Your task to perform on an android device: Open Google Maps Image 0: 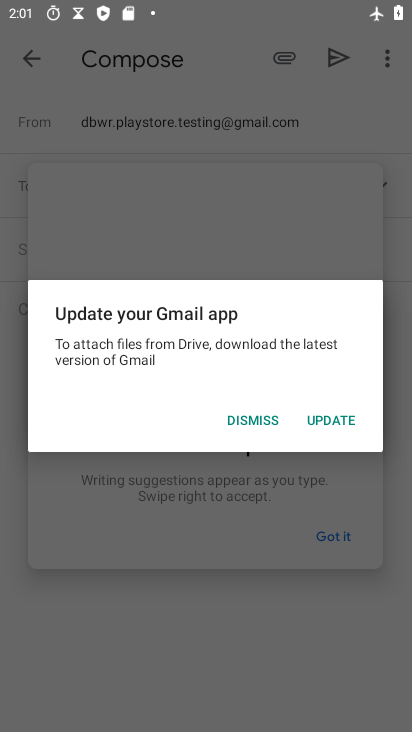
Step 0: press home button
Your task to perform on an android device: Open Google Maps Image 1: 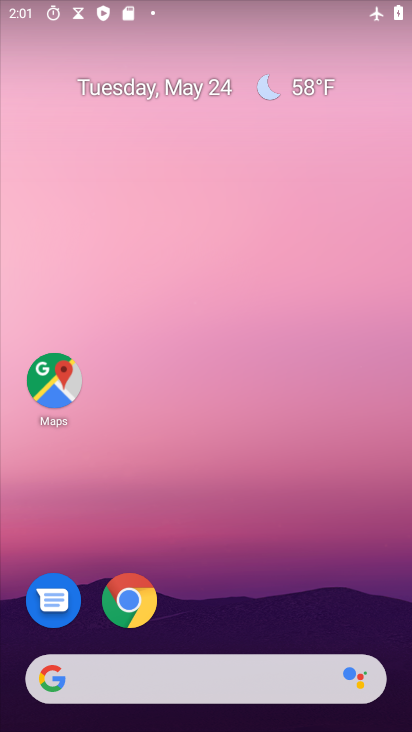
Step 1: click (50, 374)
Your task to perform on an android device: Open Google Maps Image 2: 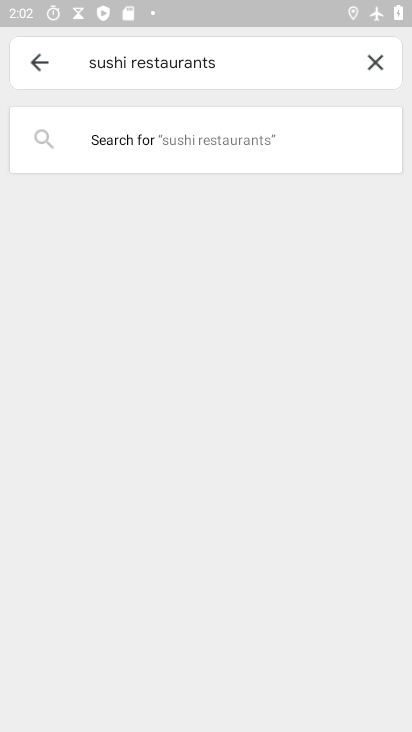
Step 2: task complete